Your task to perform on an android device: Toggle the flashlight Image 0: 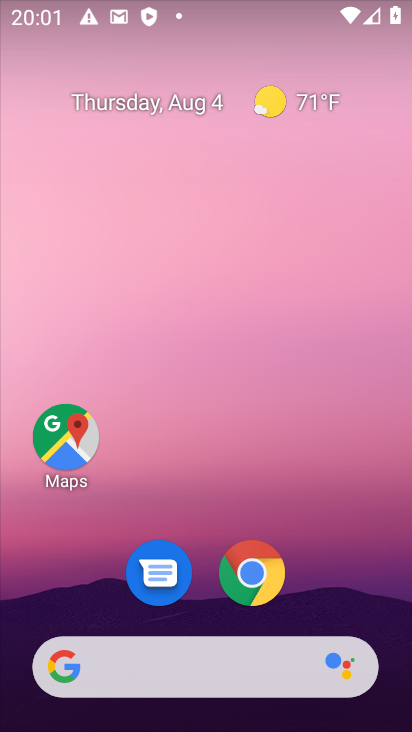
Step 0: drag from (149, 21) to (137, 714)
Your task to perform on an android device: Toggle the flashlight Image 1: 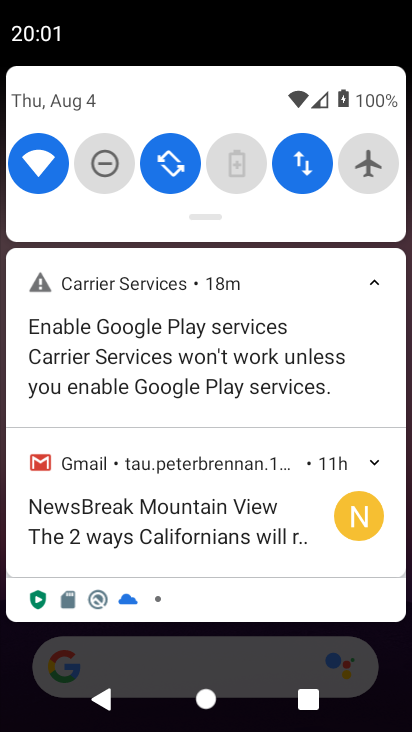
Step 1: task complete